Your task to perform on an android device: Open Chrome and go to settings Image 0: 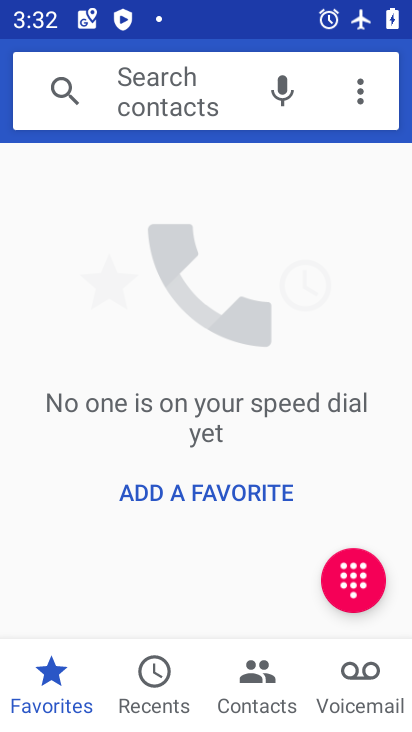
Step 0: press home button
Your task to perform on an android device: Open Chrome and go to settings Image 1: 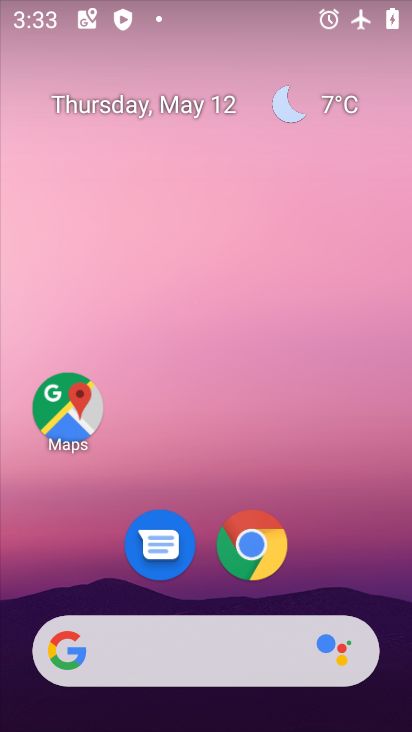
Step 1: click (247, 545)
Your task to perform on an android device: Open Chrome and go to settings Image 2: 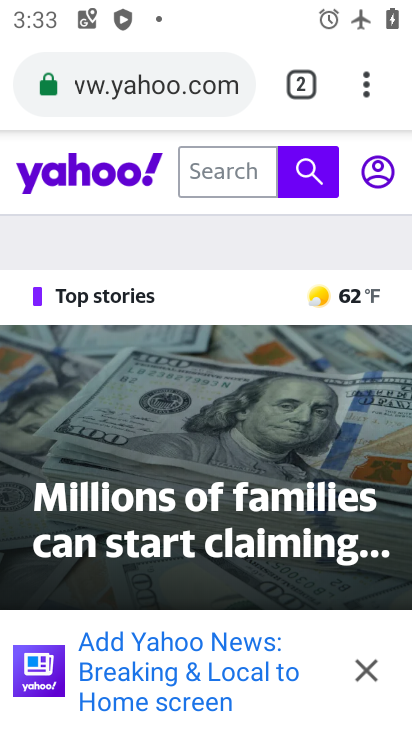
Step 2: click (361, 90)
Your task to perform on an android device: Open Chrome and go to settings Image 3: 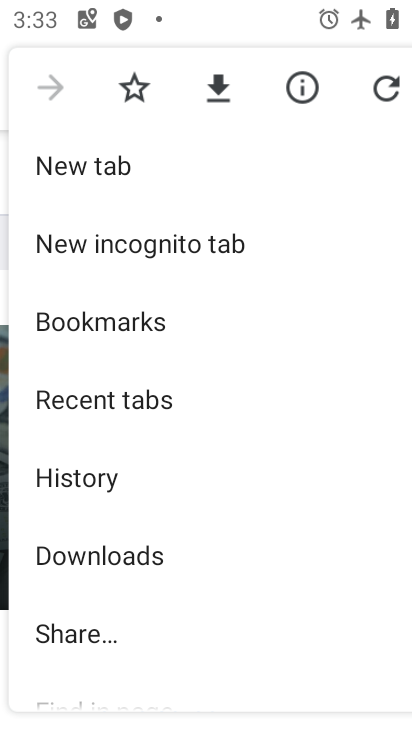
Step 3: drag from (208, 549) to (246, 93)
Your task to perform on an android device: Open Chrome and go to settings Image 4: 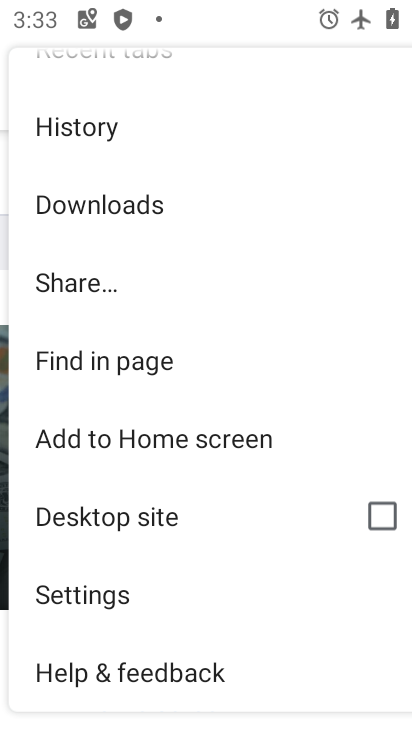
Step 4: click (70, 586)
Your task to perform on an android device: Open Chrome and go to settings Image 5: 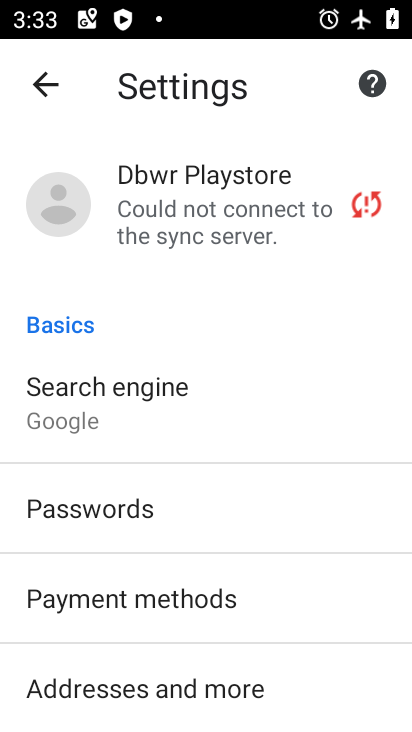
Step 5: task complete